Your task to perform on an android device: Check the weather Image 0: 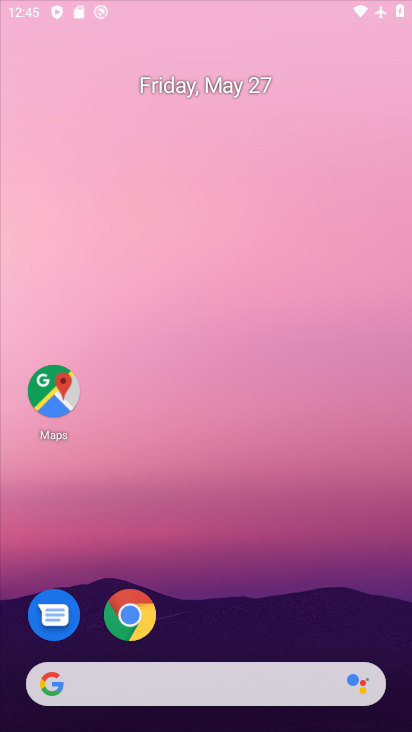
Step 0: press home button
Your task to perform on an android device: Check the weather Image 1: 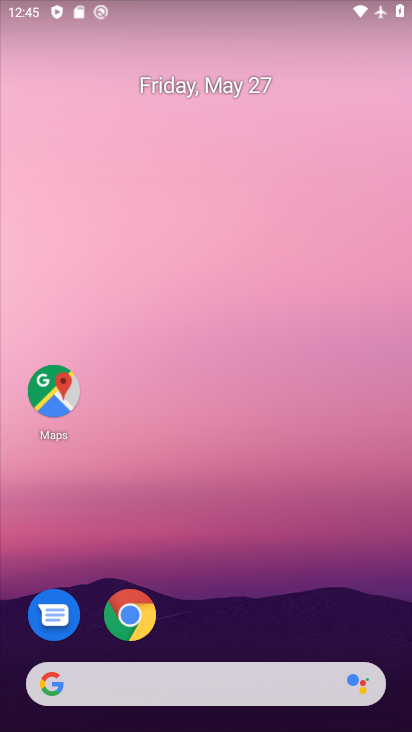
Step 1: click (58, 692)
Your task to perform on an android device: Check the weather Image 2: 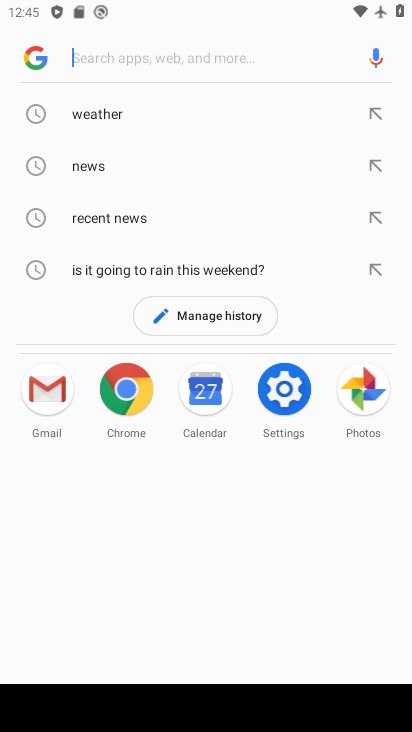
Step 2: click (103, 121)
Your task to perform on an android device: Check the weather Image 3: 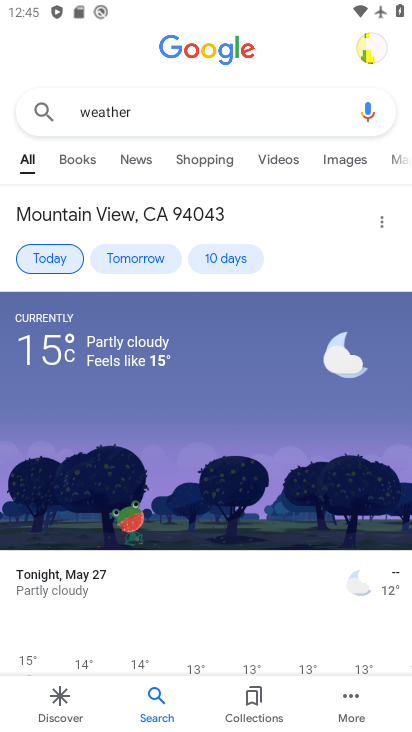
Step 3: task complete